Your task to perform on an android device: Open Google Maps Image 0: 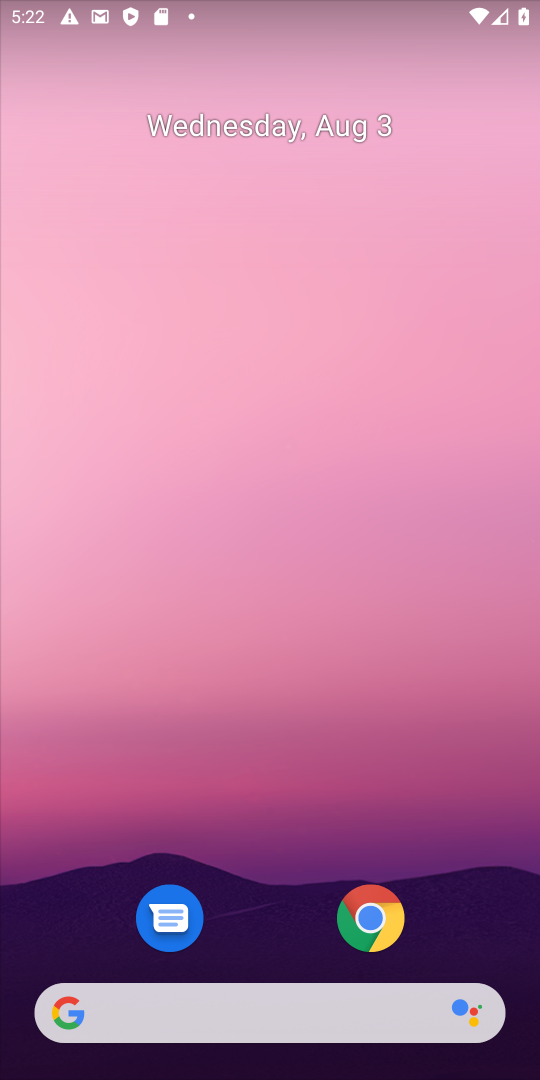
Step 0: drag from (278, 1022) to (214, 236)
Your task to perform on an android device: Open Google Maps Image 1: 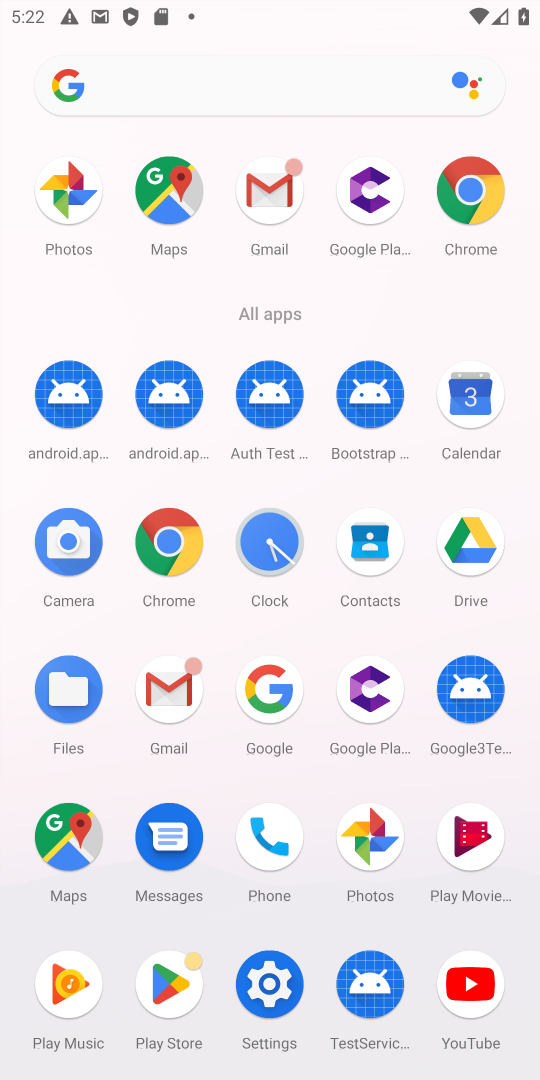
Step 1: click (65, 827)
Your task to perform on an android device: Open Google Maps Image 2: 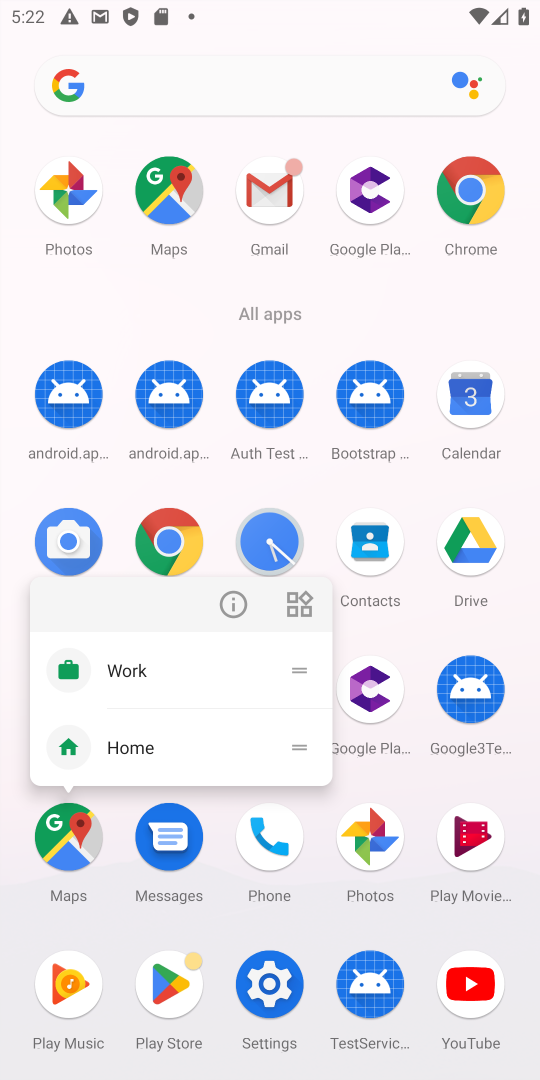
Step 2: click (65, 827)
Your task to perform on an android device: Open Google Maps Image 3: 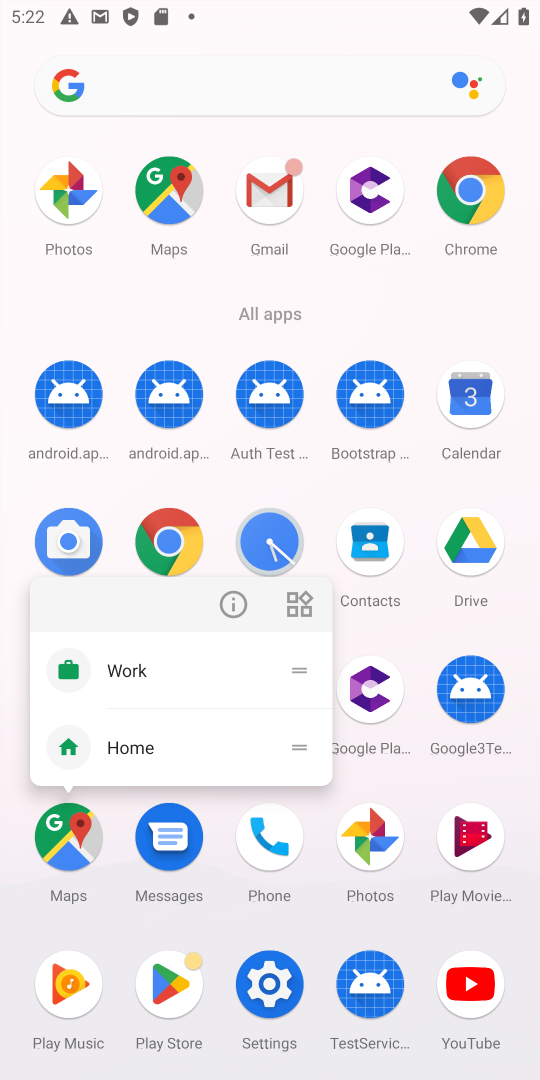
Step 3: click (65, 827)
Your task to perform on an android device: Open Google Maps Image 4: 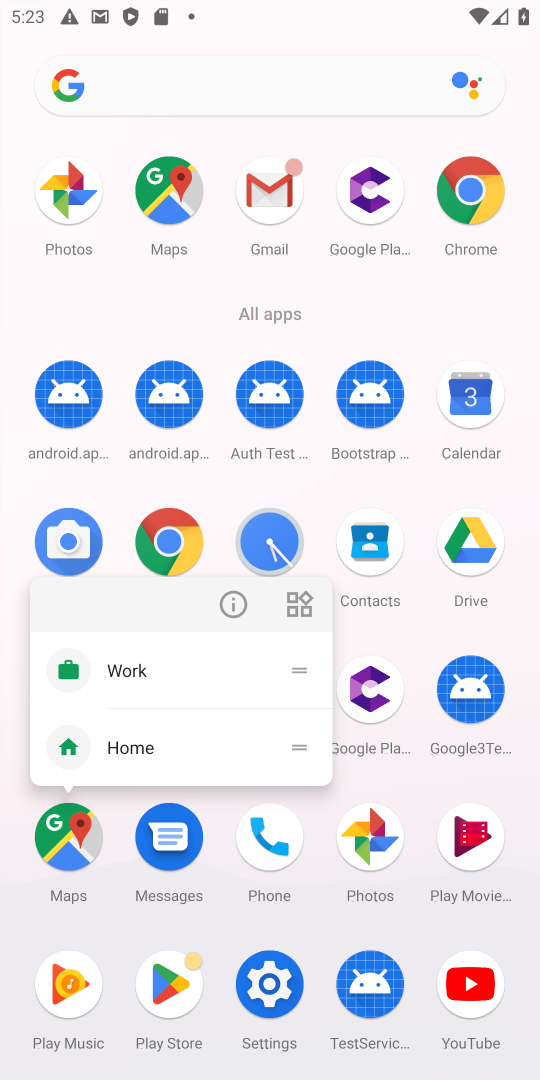
Step 4: click (51, 832)
Your task to perform on an android device: Open Google Maps Image 5: 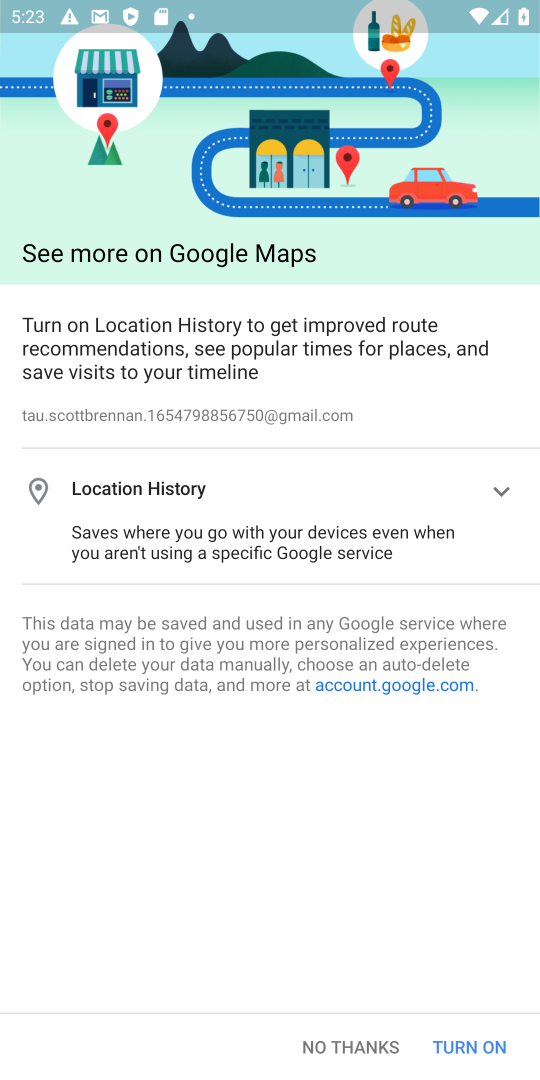
Step 5: task complete